Your task to perform on an android device: Open Amazon Image 0: 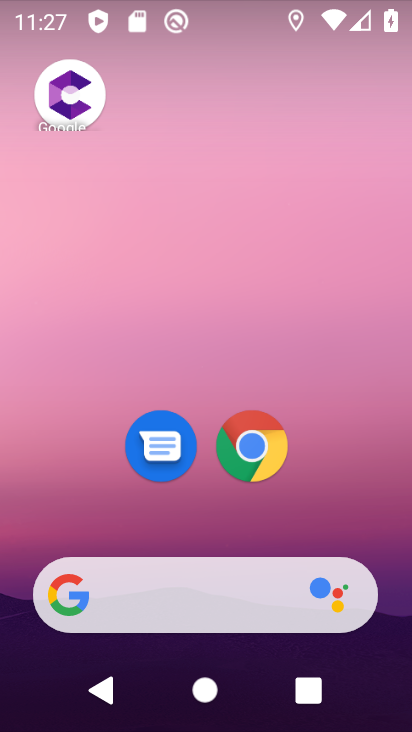
Step 0: click (260, 449)
Your task to perform on an android device: Open Amazon Image 1: 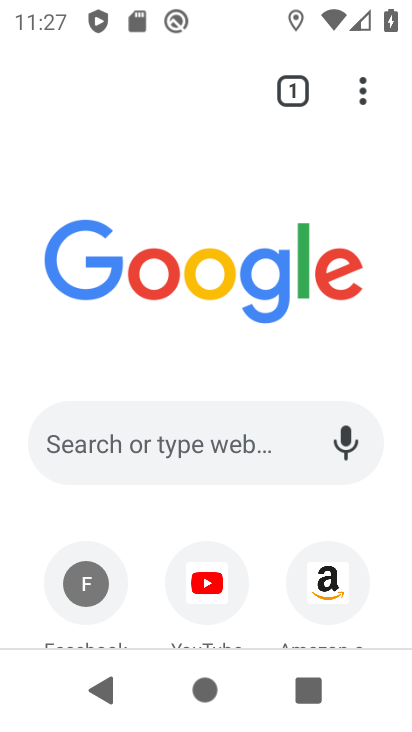
Step 1: click (326, 569)
Your task to perform on an android device: Open Amazon Image 2: 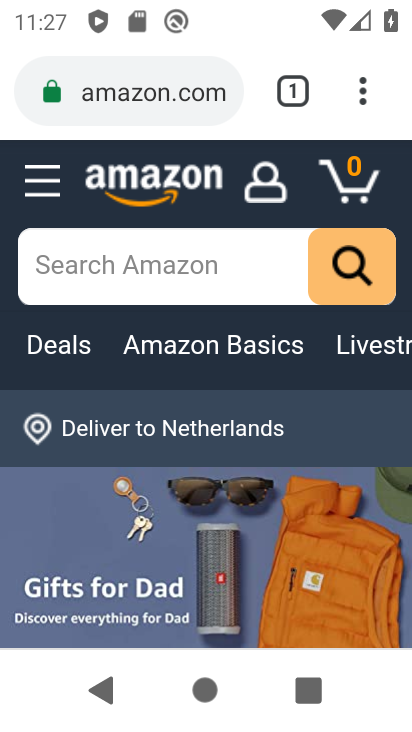
Step 2: task complete